Your task to perform on an android device: Open battery settings Image 0: 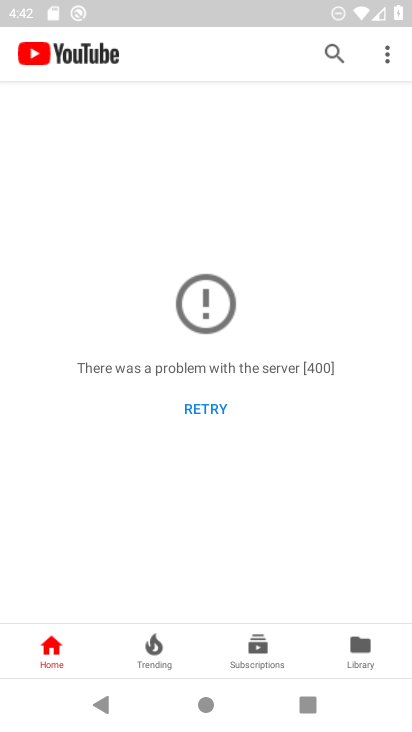
Step 0: press back button
Your task to perform on an android device: Open battery settings Image 1: 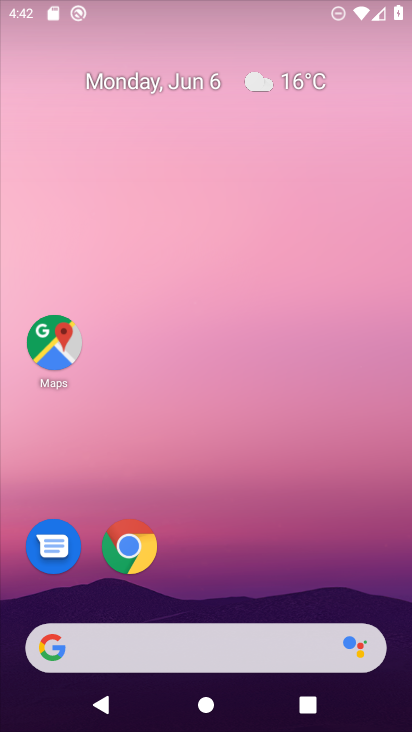
Step 1: drag from (213, 596) to (124, 0)
Your task to perform on an android device: Open battery settings Image 2: 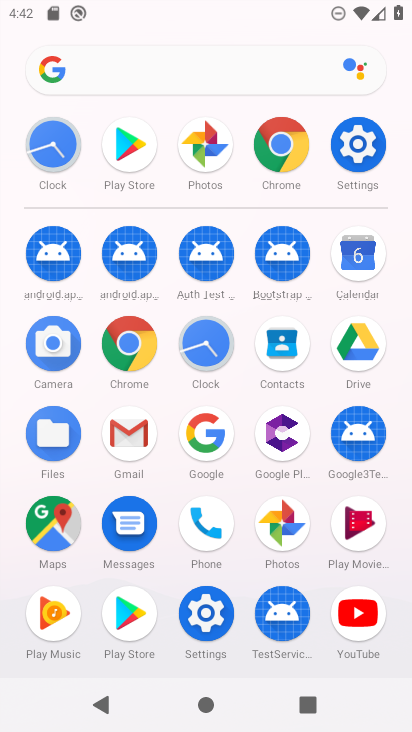
Step 2: click (356, 160)
Your task to perform on an android device: Open battery settings Image 3: 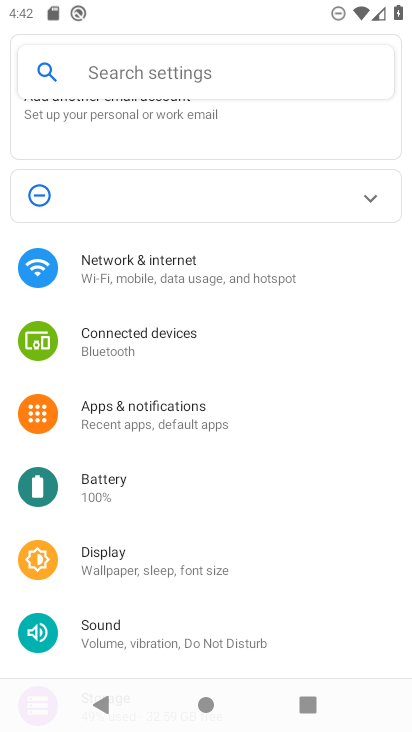
Step 3: drag from (169, 552) to (132, 141)
Your task to perform on an android device: Open battery settings Image 4: 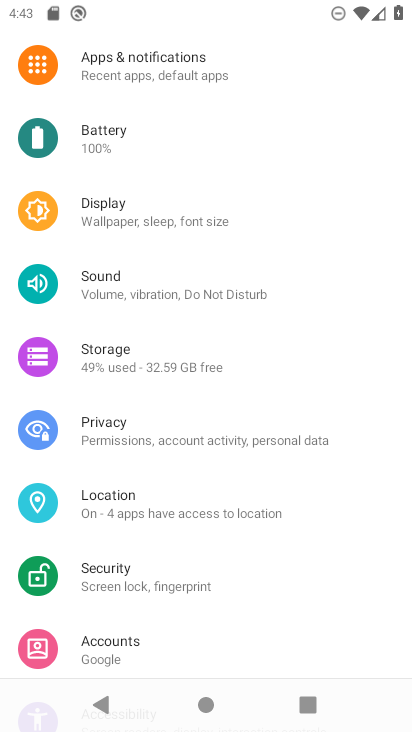
Step 4: drag from (131, 565) to (96, 60)
Your task to perform on an android device: Open battery settings Image 5: 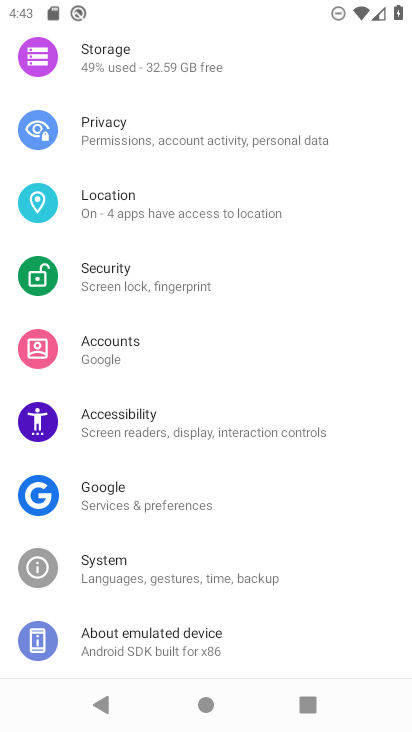
Step 5: drag from (106, 197) to (116, 531)
Your task to perform on an android device: Open battery settings Image 6: 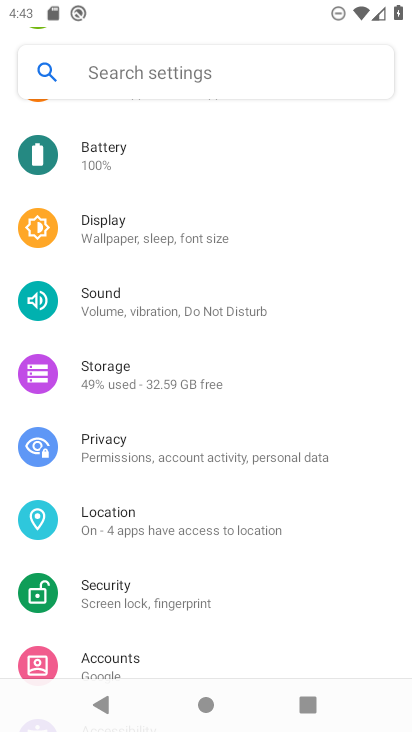
Step 6: click (111, 167)
Your task to perform on an android device: Open battery settings Image 7: 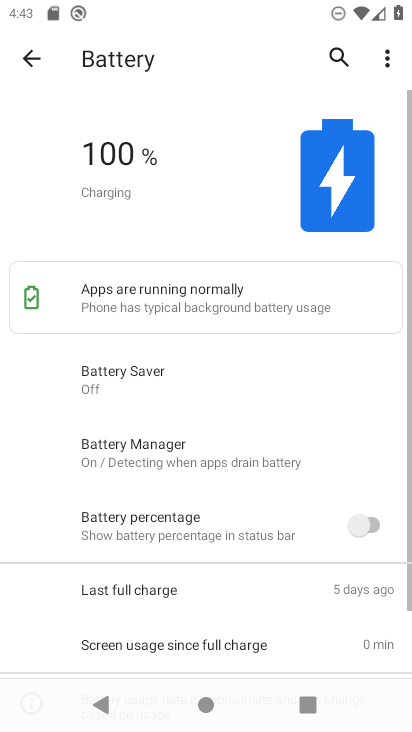
Step 7: task complete